Your task to perform on an android device: Search for sushi restaurants on Maps Image 0: 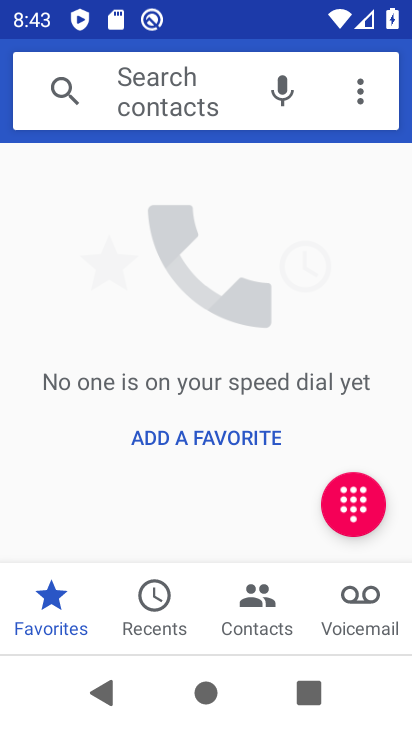
Step 0: press home button
Your task to perform on an android device: Search for sushi restaurants on Maps Image 1: 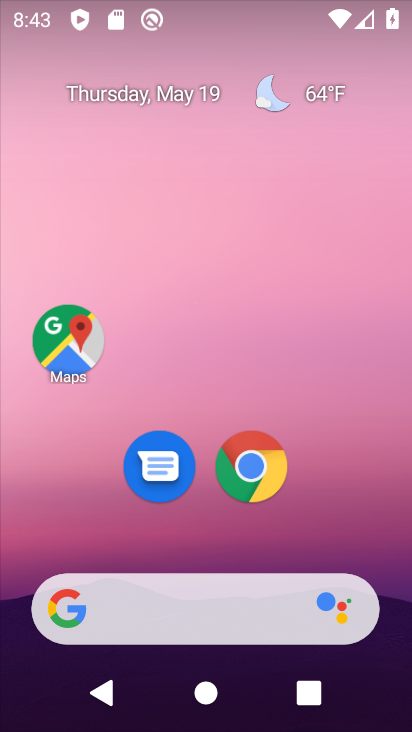
Step 1: drag from (411, 628) to (394, 0)
Your task to perform on an android device: Search for sushi restaurants on Maps Image 2: 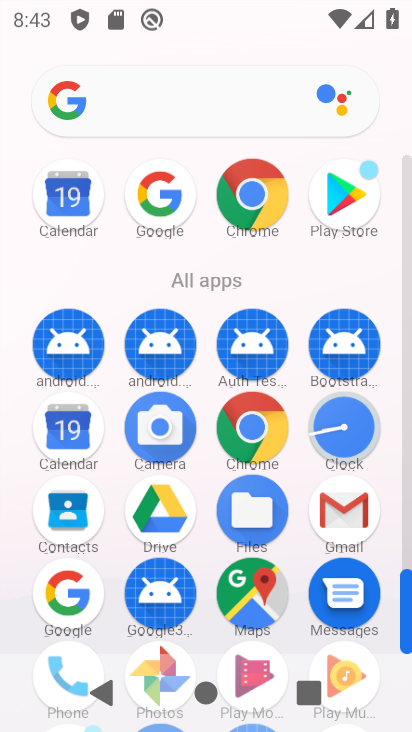
Step 2: click (247, 587)
Your task to perform on an android device: Search for sushi restaurants on Maps Image 3: 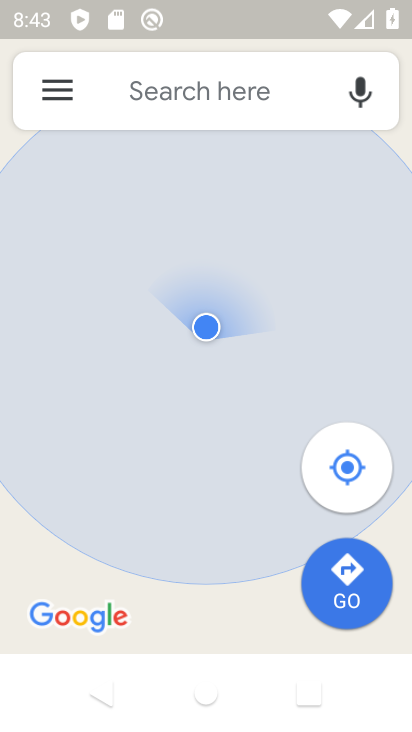
Step 3: click (171, 109)
Your task to perform on an android device: Search for sushi restaurants on Maps Image 4: 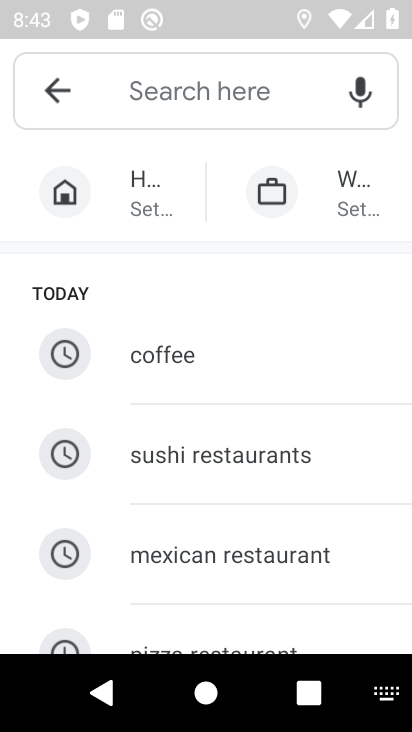
Step 4: drag from (191, 596) to (267, 278)
Your task to perform on an android device: Search for sushi restaurants on Maps Image 5: 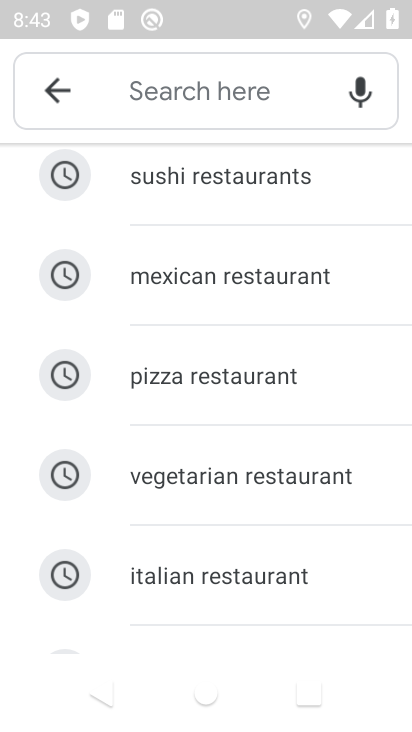
Step 5: click (204, 198)
Your task to perform on an android device: Search for sushi restaurants on Maps Image 6: 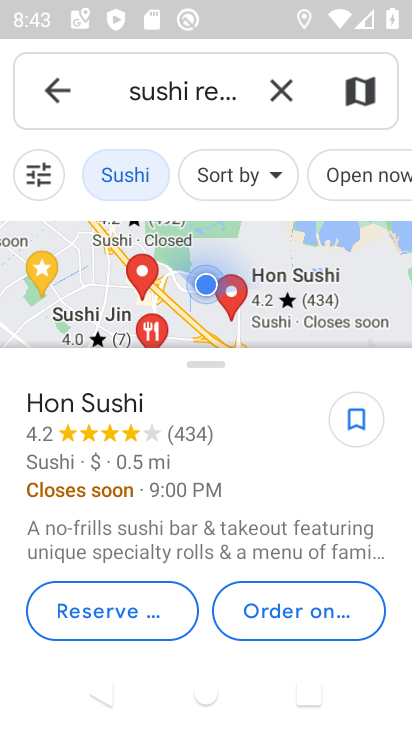
Step 6: task complete